Your task to perform on an android device: turn on sleep mode Image 0: 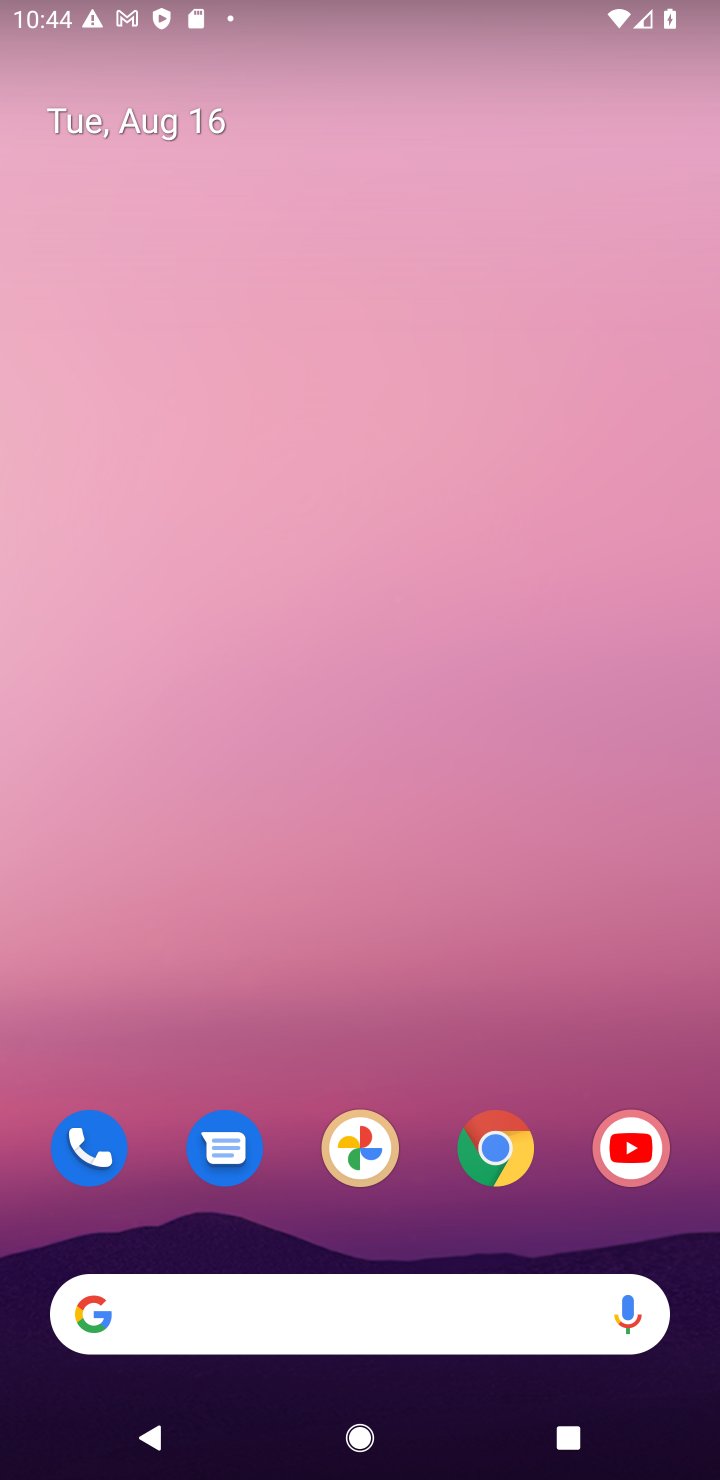
Step 0: press home button
Your task to perform on an android device: turn on sleep mode Image 1: 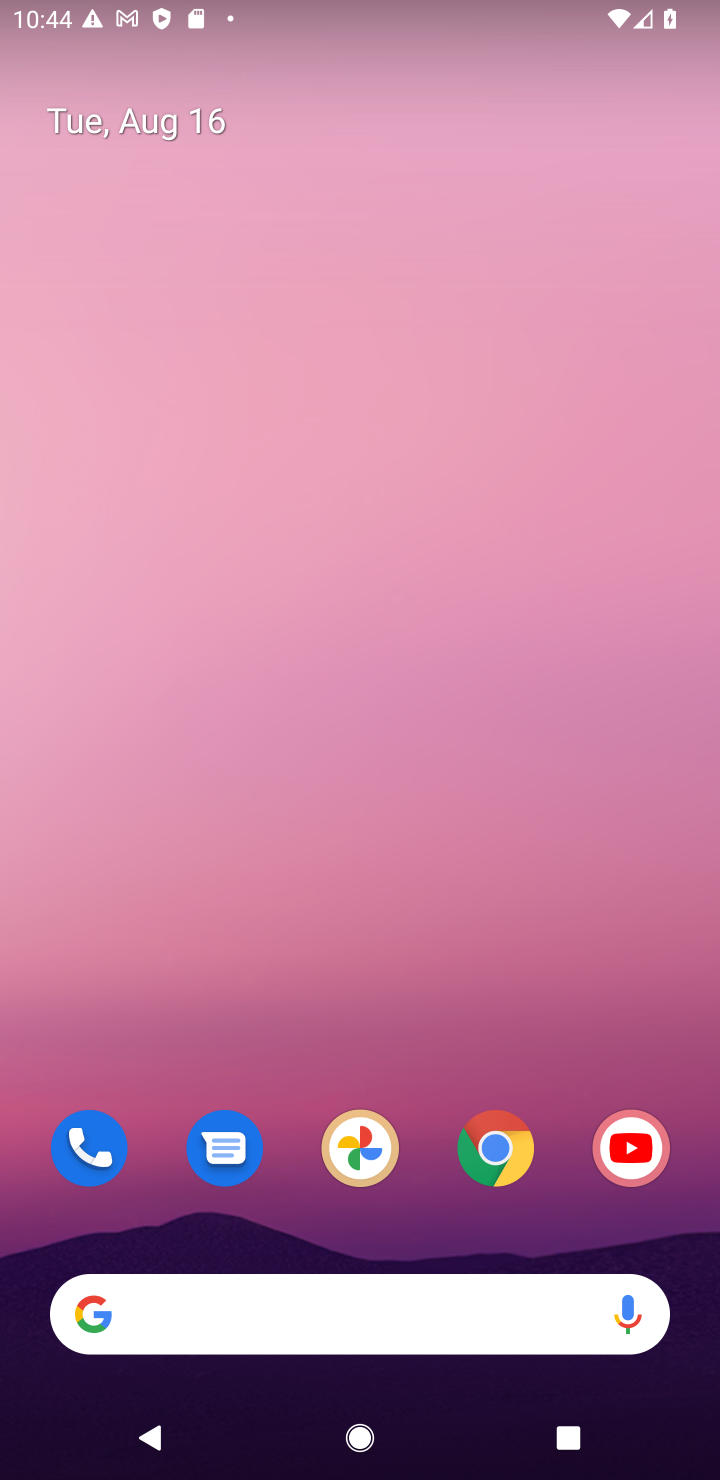
Step 1: press home button
Your task to perform on an android device: turn on sleep mode Image 2: 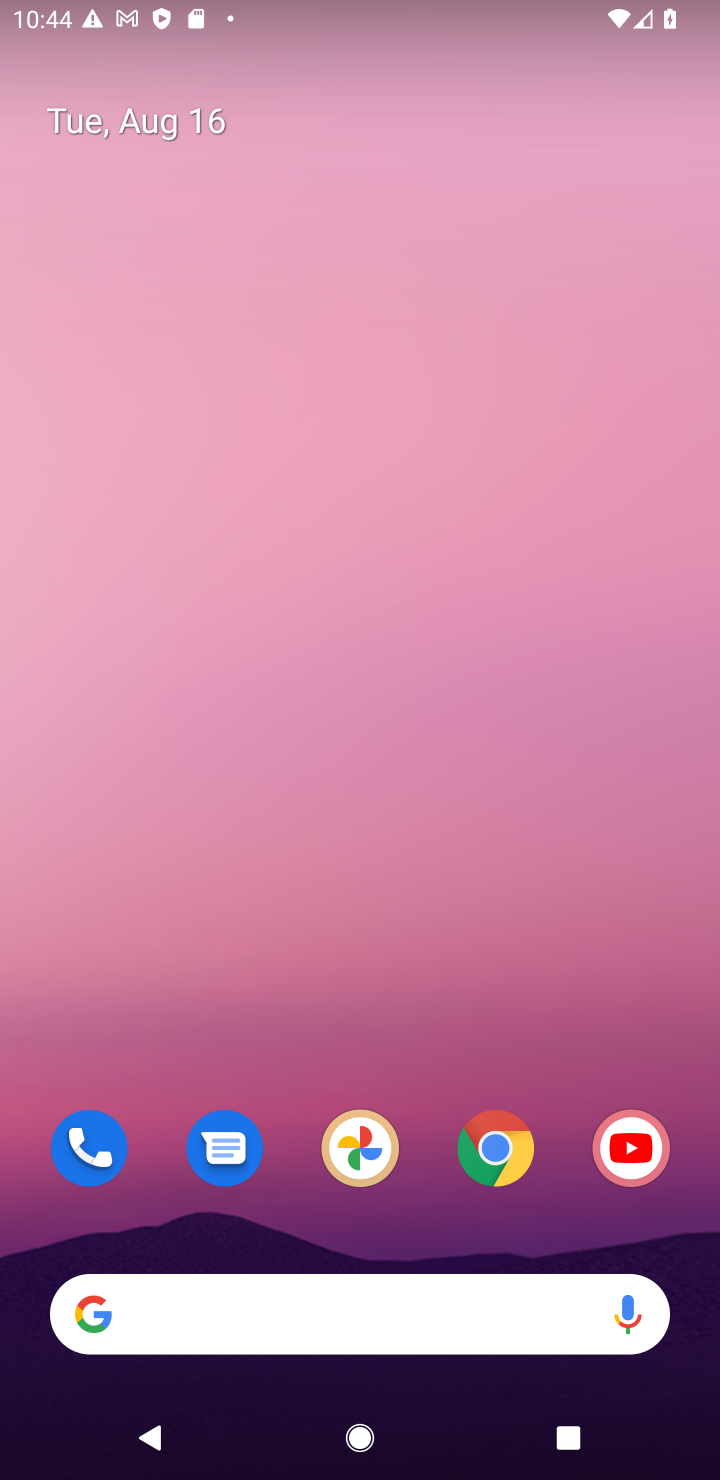
Step 2: drag from (399, 1252) to (383, 174)
Your task to perform on an android device: turn on sleep mode Image 3: 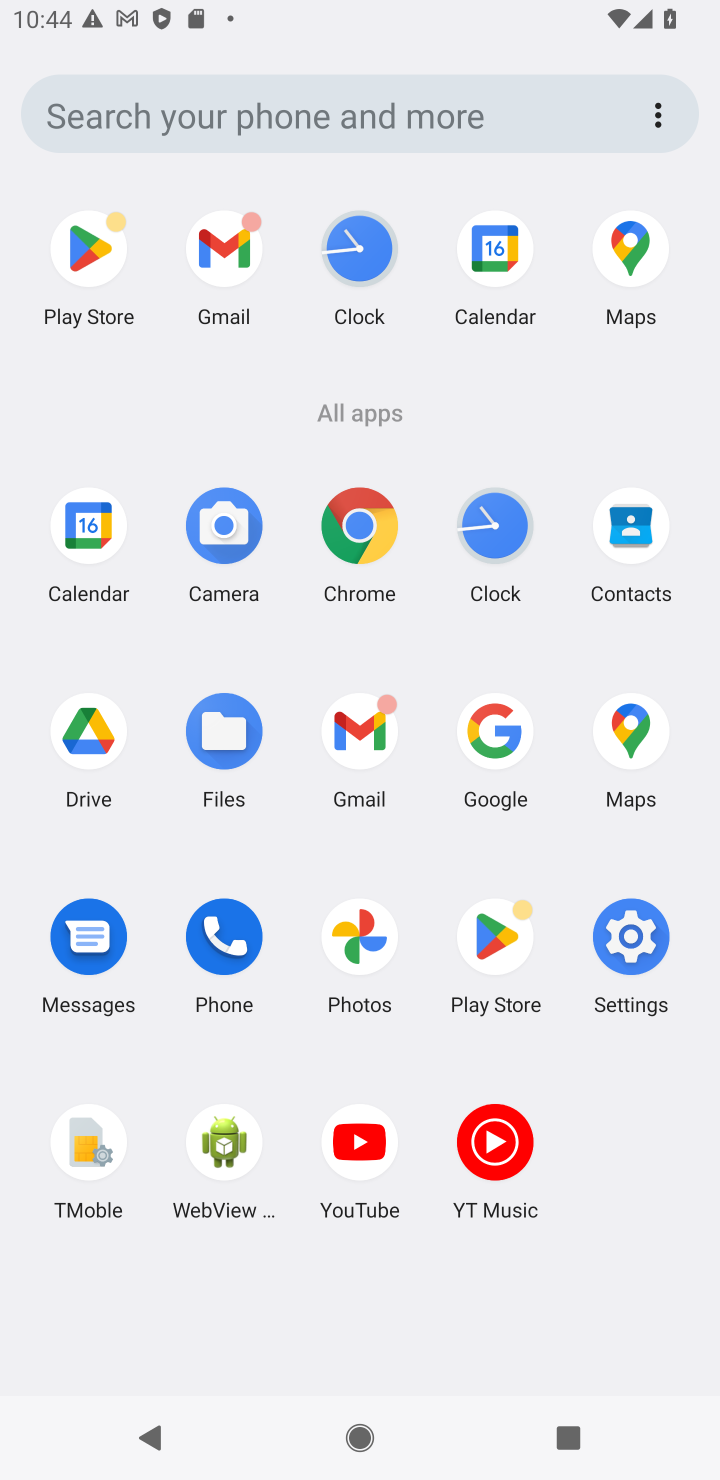
Step 3: click (612, 928)
Your task to perform on an android device: turn on sleep mode Image 4: 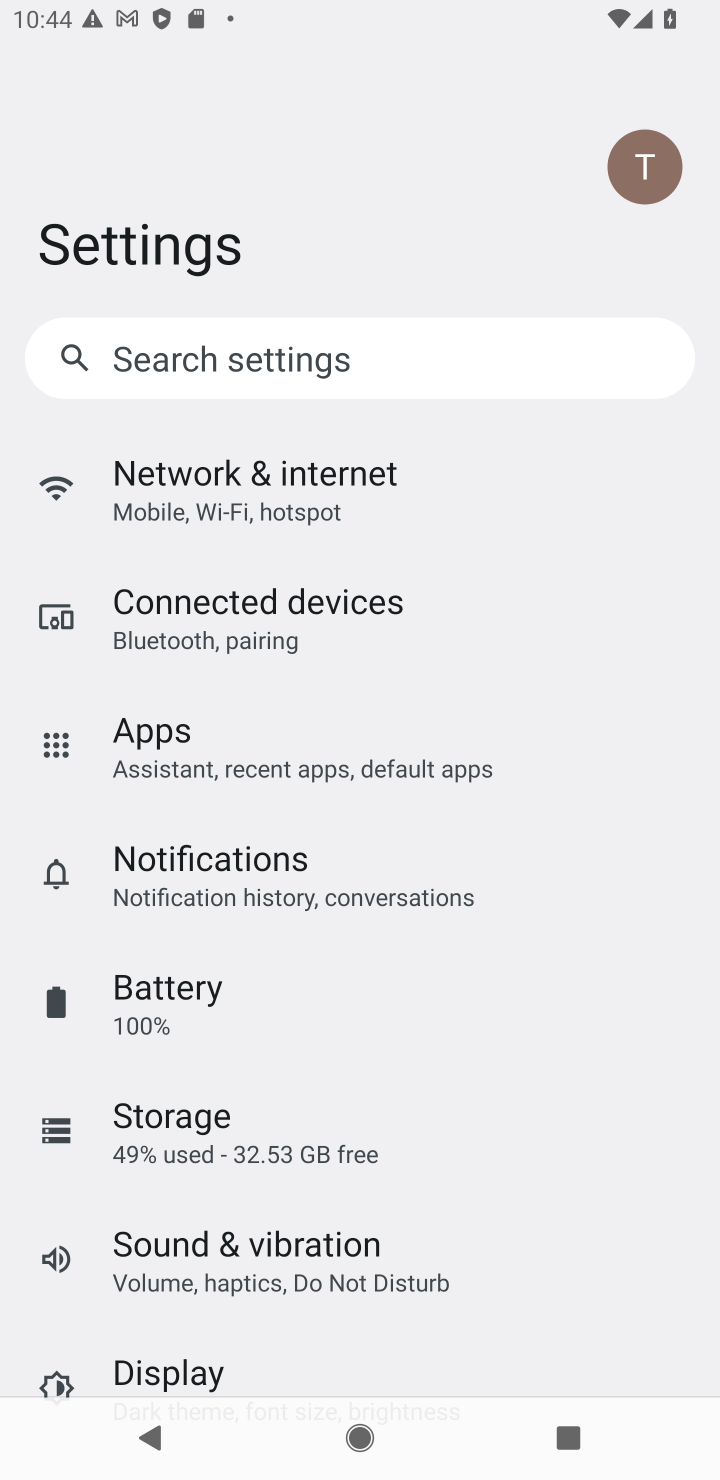
Step 4: drag from (225, 1166) to (316, 413)
Your task to perform on an android device: turn on sleep mode Image 5: 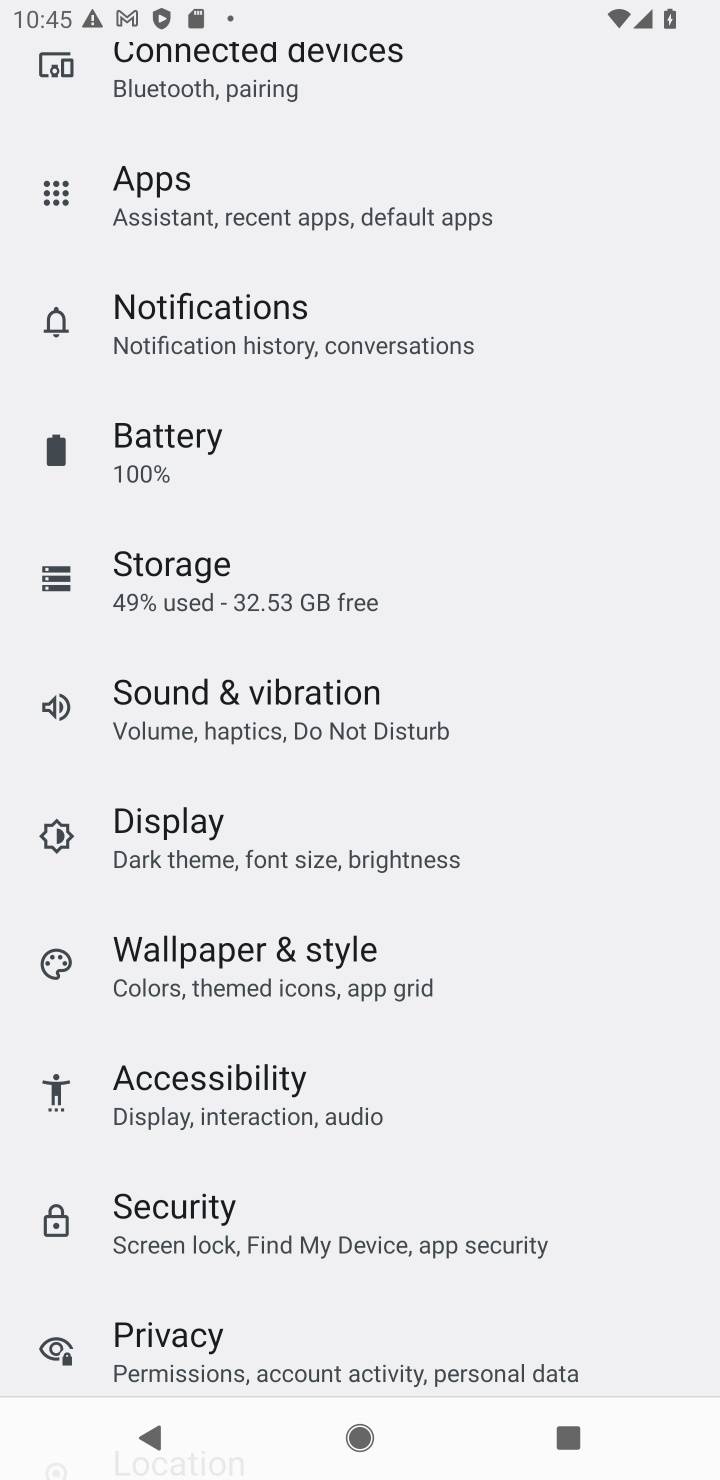
Step 5: click (214, 834)
Your task to perform on an android device: turn on sleep mode Image 6: 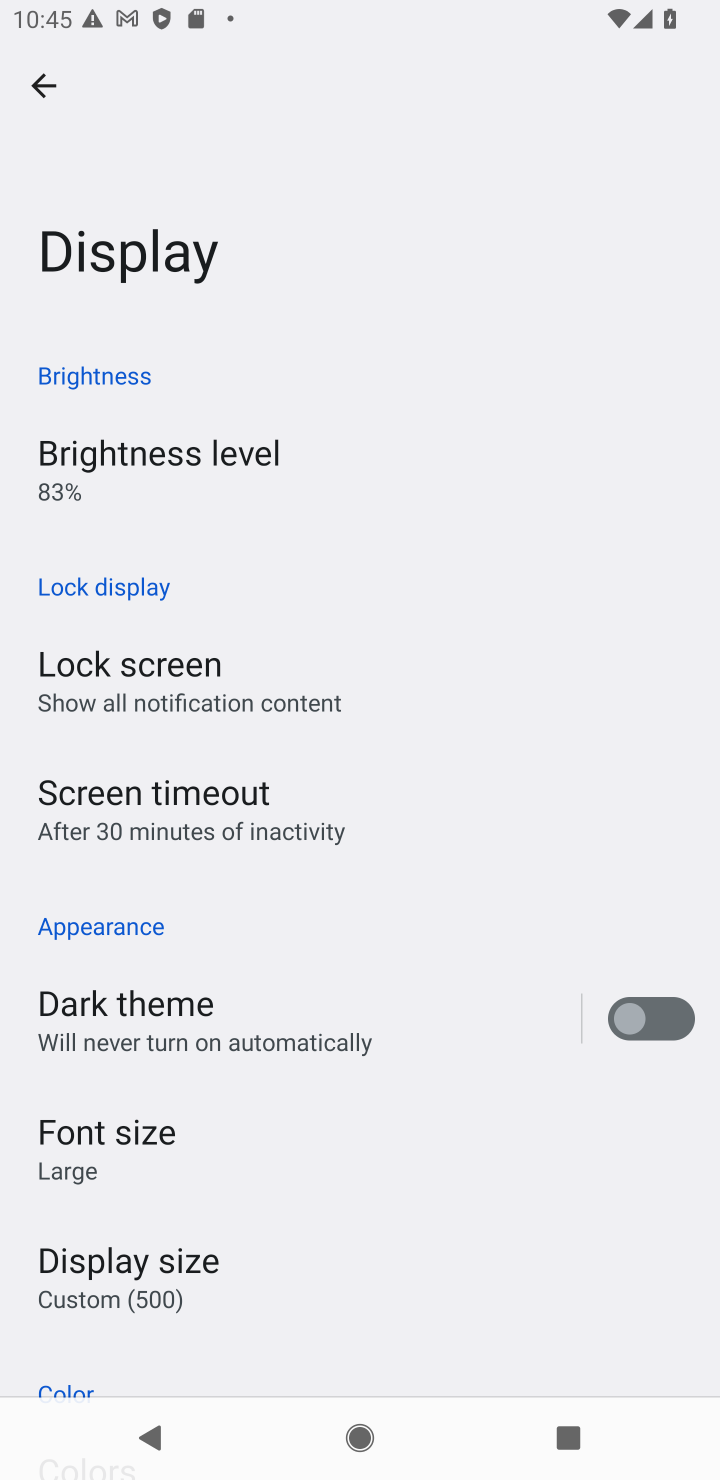
Step 6: task complete